Your task to perform on an android device: turn on notifications settings in the gmail app Image 0: 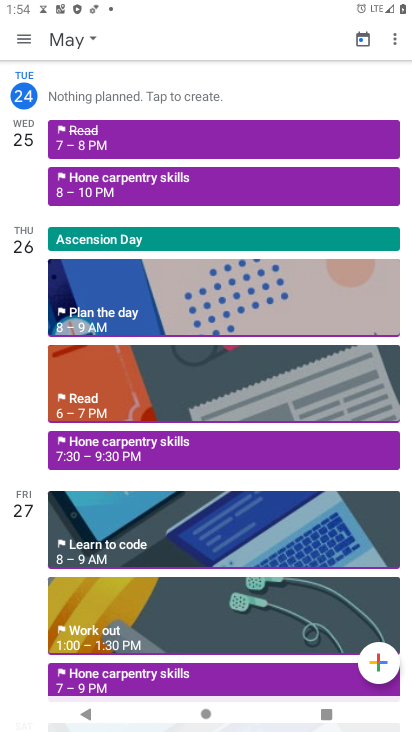
Step 0: press home button
Your task to perform on an android device: turn on notifications settings in the gmail app Image 1: 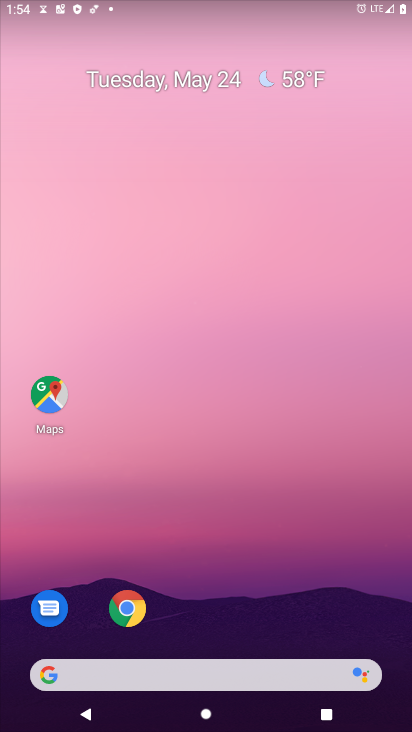
Step 1: drag from (283, 692) to (382, 146)
Your task to perform on an android device: turn on notifications settings in the gmail app Image 2: 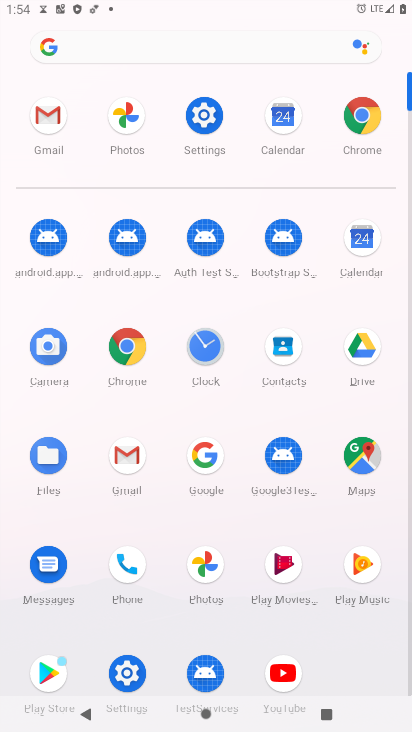
Step 2: click (48, 118)
Your task to perform on an android device: turn on notifications settings in the gmail app Image 3: 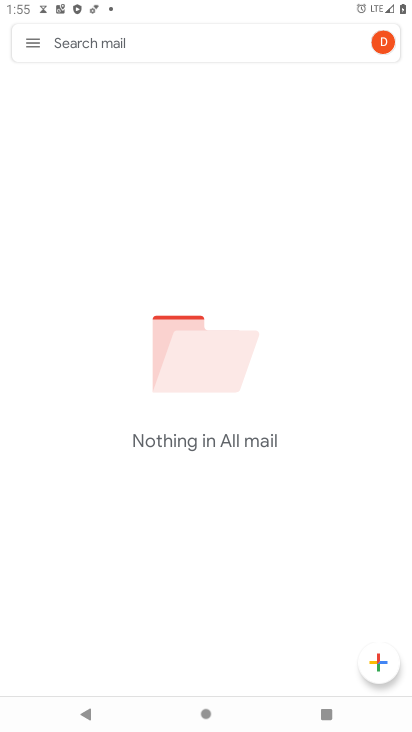
Step 3: click (43, 52)
Your task to perform on an android device: turn on notifications settings in the gmail app Image 4: 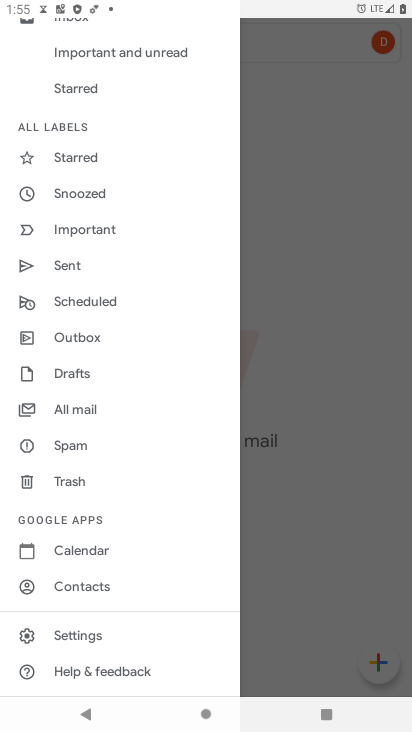
Step 4: click (93, 633)
Your task to perform on an android device: turn on notifications settings in the gmail app Image 5: 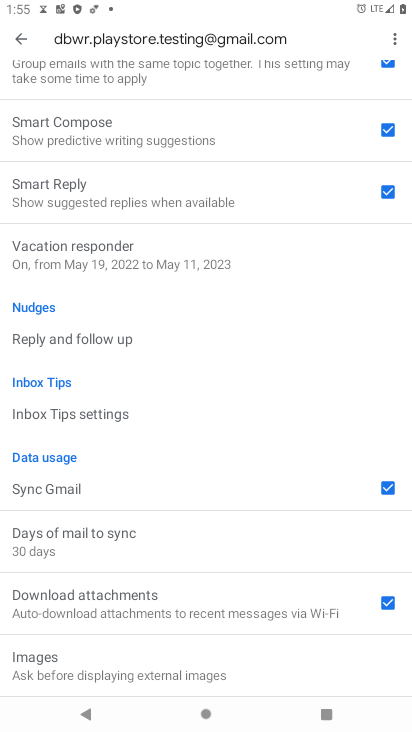
Step 5: drag from (82, 129) to (163, 680)
Your task to perform on an android device: turn on notifications settings in the gmail app Image 6: 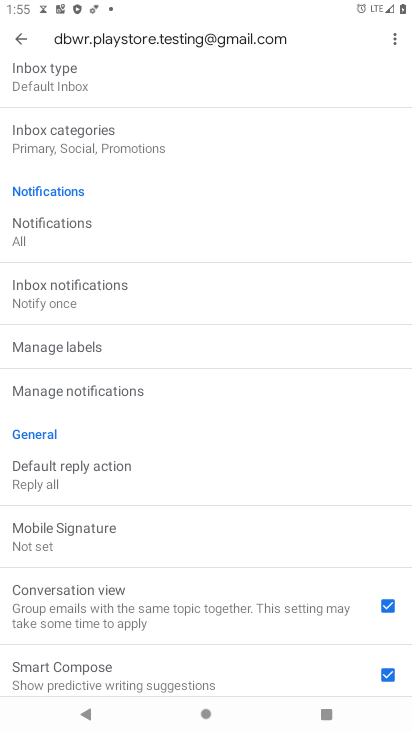
Step 6: click (96, 239)
Your task to perform on an android device: turn on notifications settings in the gmail app Image 7: 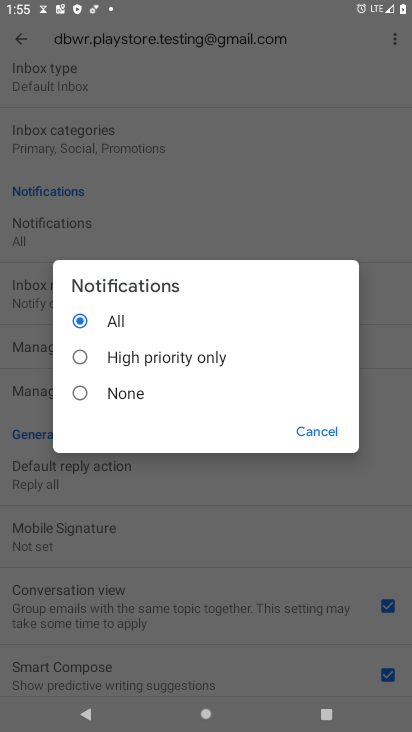
Step 7: task complete